Your task to perform on an android device: move an email to a new category in the gmail app Image 0: 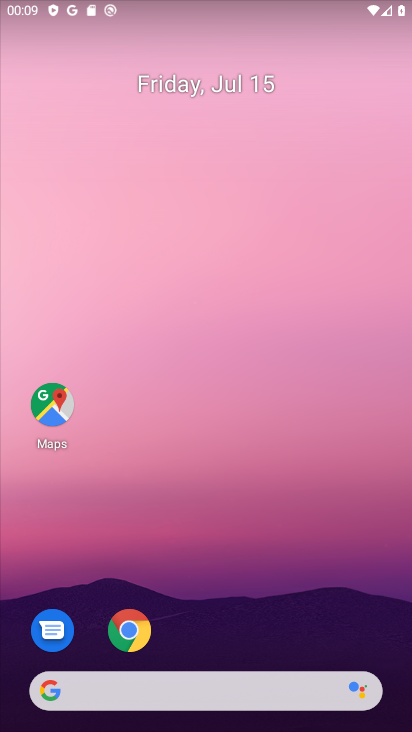
Step 0: drag from (266, 636) to (255, 220)
Your task to perform on an android device: move an email to a new category in the gmail app Image 1: 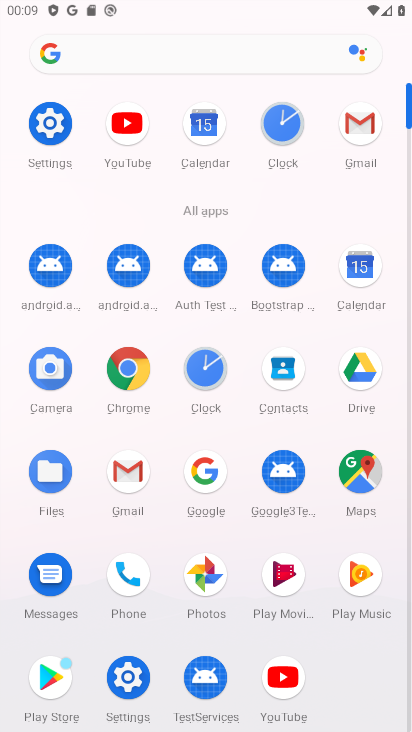
Step 1: click (357, 141)
Your task to perform on an android device: move an email to a new category in the gmail app Image 2: 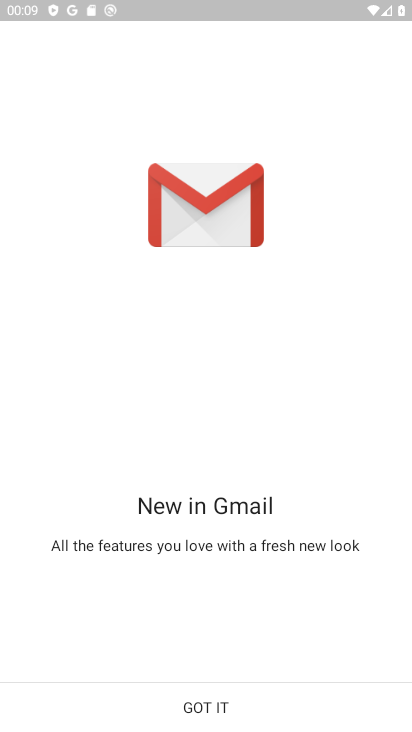
Step 2: click (212, 694)
Your task to perform on an android device: move an email to a new category in the gmail app Image 3: 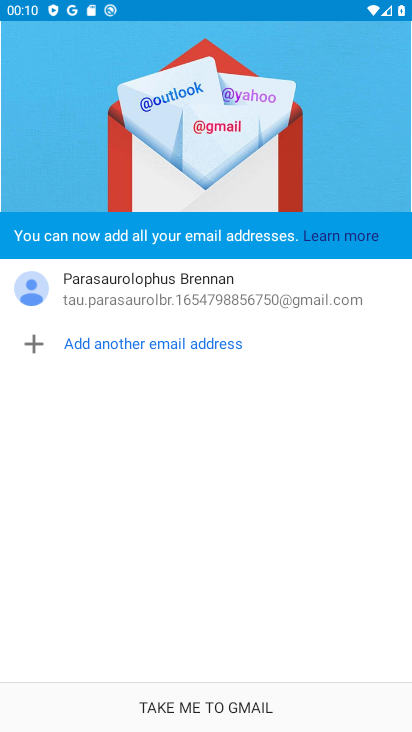
Step 3: click (212, 694)
Your task to perform on an android device: move an email to a new category in the gmail app Image 4: 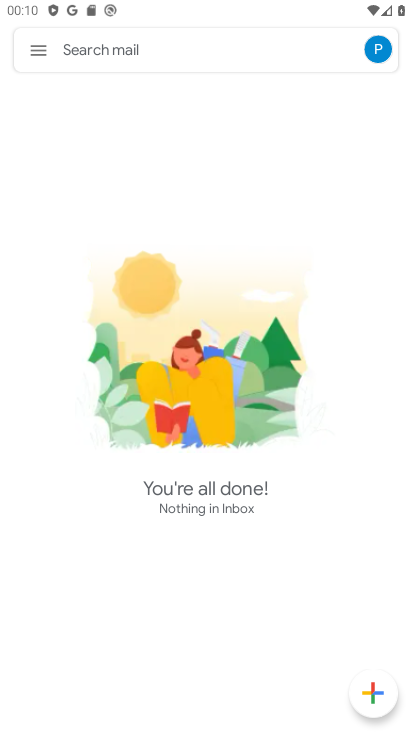
Step 4: click (34, 59)
Your task to perform on an android device: move an email to a new category in the gmail app Image 5: 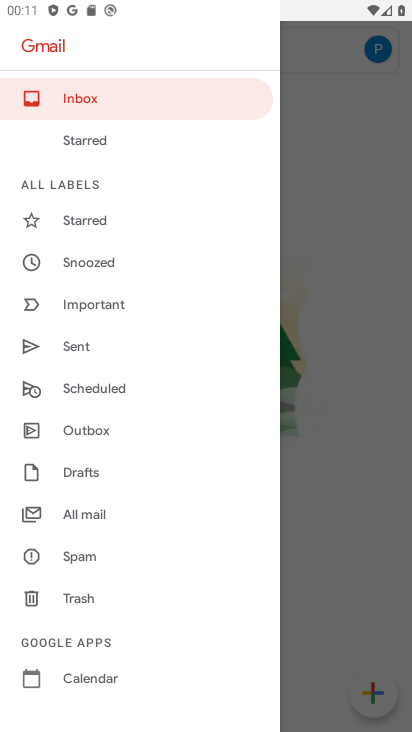
Step 5: click (64, 140)
Your task to perform on an android device: move an email to a new category in the gmail app Image 6: 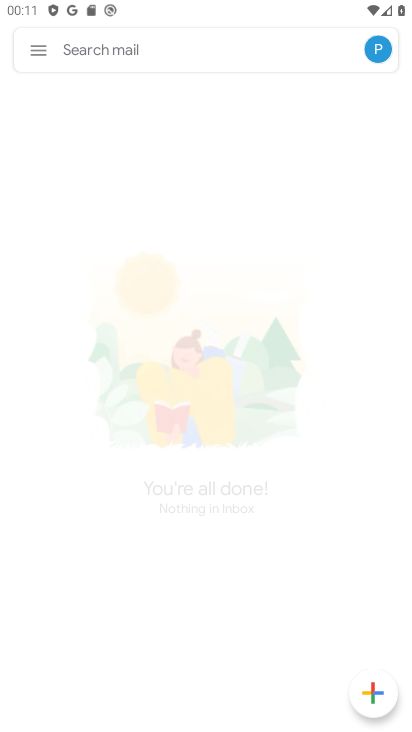
Step 6: task complete